Your task to perform on an android device: open device folders in google photos Image 0: 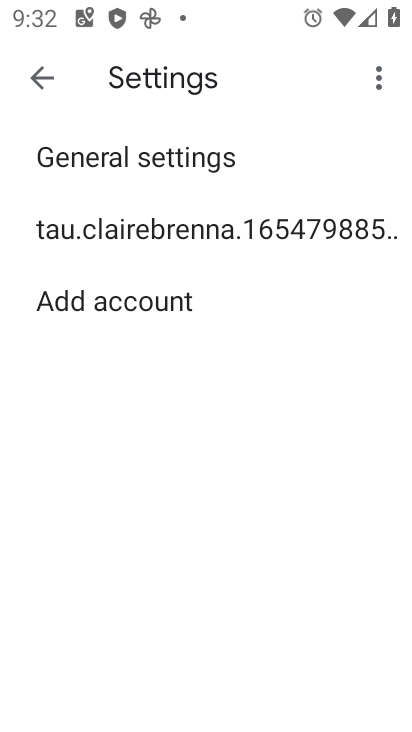
Step 0: press home button
Your task to perform on an android device: open device folders in google photos Image 1: 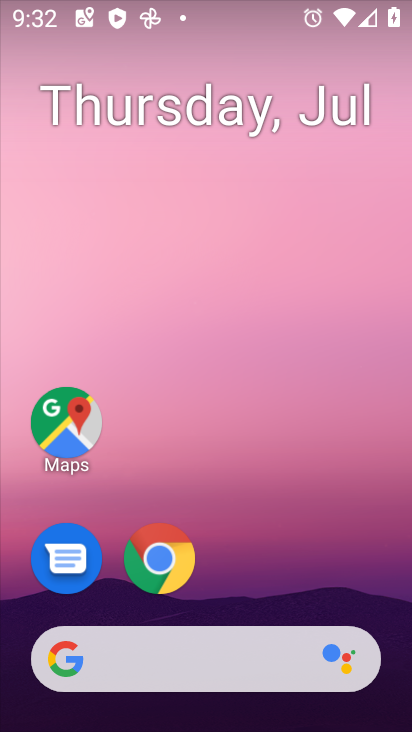
Step 1: drag from (273, 570) to (326, 195)
Your task to perform on an android device: open device folders in google photos Image 2: 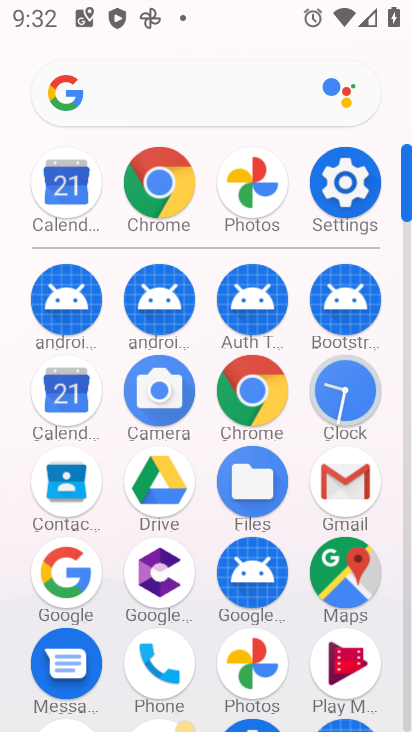
Step 2: click (261, 205)
Your task to perform on an android device: open device folders in google photos Image 3: 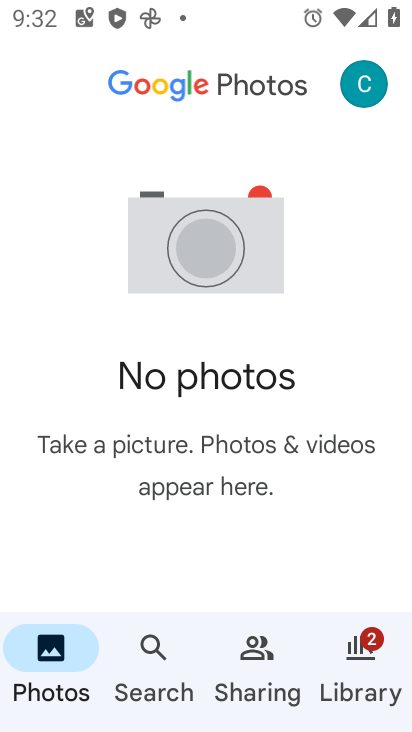
Step 3: click (378, 650)
Your task to perform on an android device: open device folders in google photos Image 4: 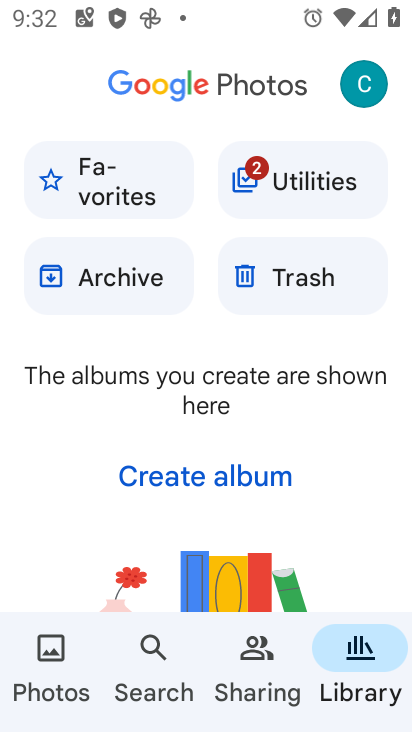
Step 4: task complete